Your task to perform on an android device: Open the map Image 0: 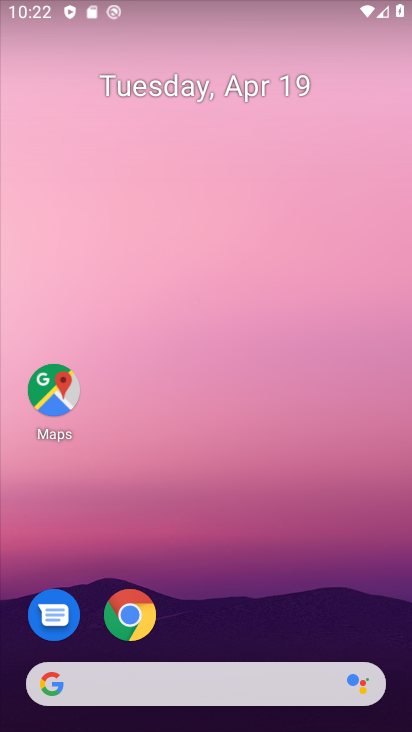
Step 0: click (49, 392)
Your task to perform on an android device: Open the map Image 1: 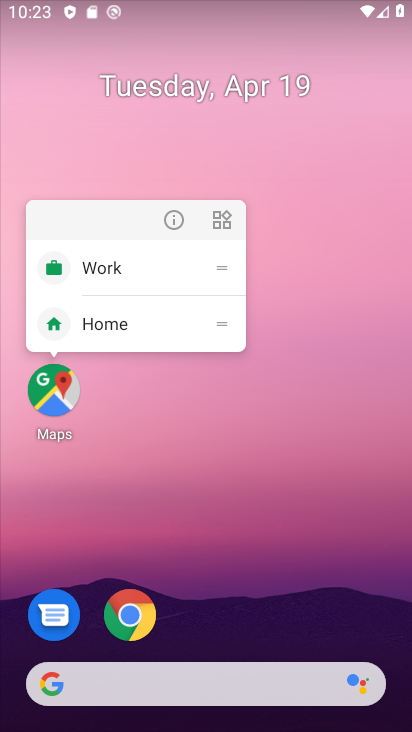
Step 1: click (49, 392)
Your task to perform on an android device: Open the map Image 2: 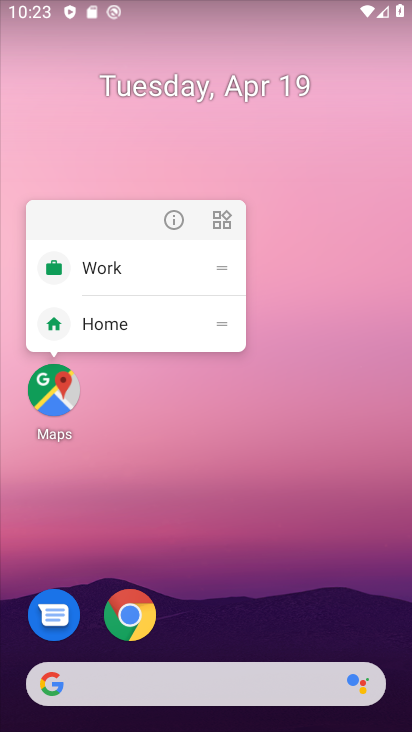
Step 2: click (49, 392)
Your task to perform on an android device: Open the map Image 3: 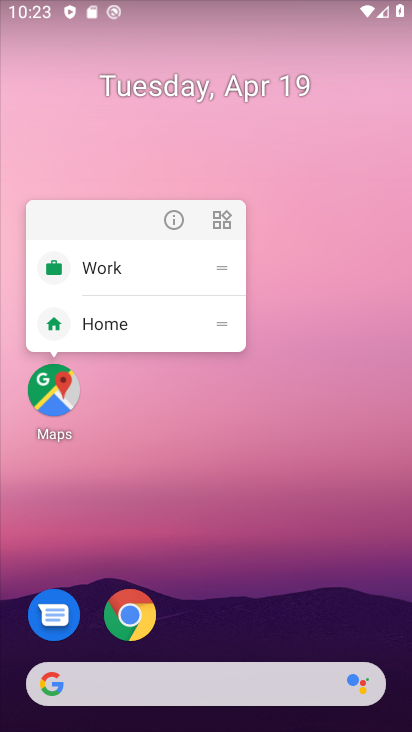
Step 3: click (49, 392)
Your task to perform on an android device: Open the map Image 4: 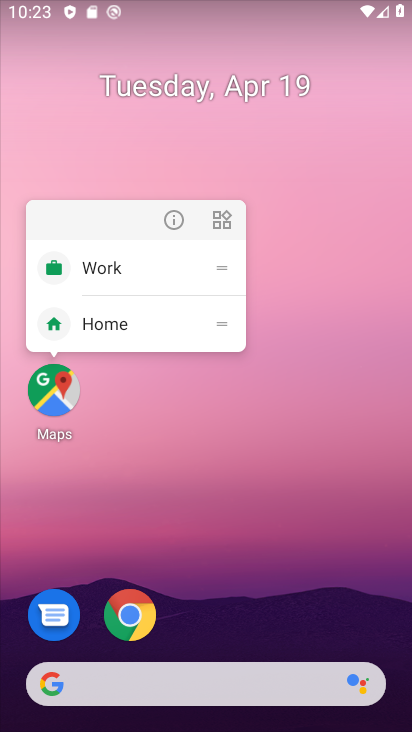
Step 4: click (49, 392)
Your task to perform on an android device: Open the map Image 5: 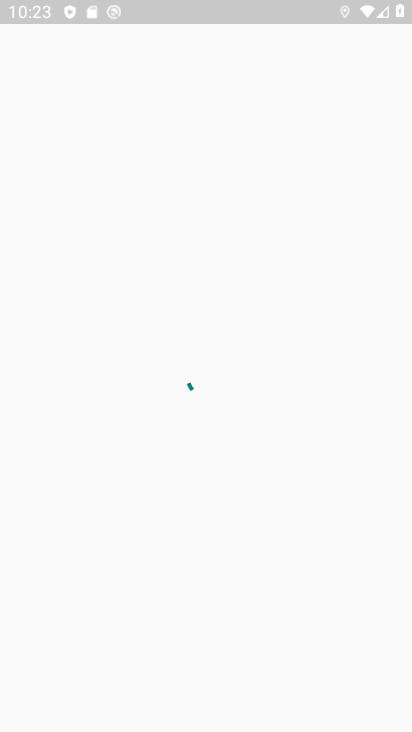
Step 5: task complete